Your task to perform on an android device: Open the phone app and click the voicemail tab. Image 0: 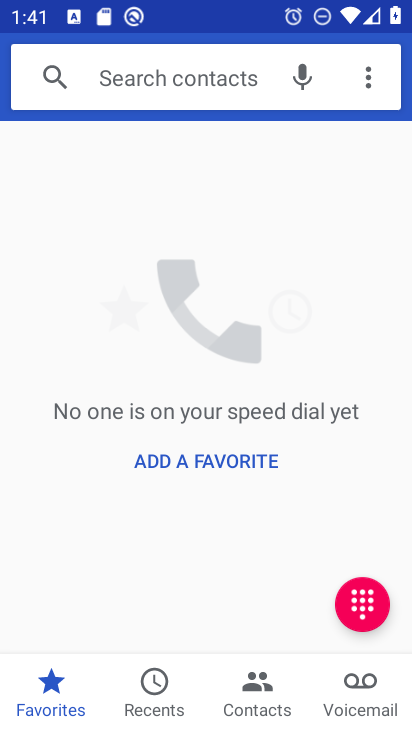
Step 0: drag from (232, 638) to (289, 270)
Your task to perform on an android device: Open the phone app and click the voicemail tab. Image 1: 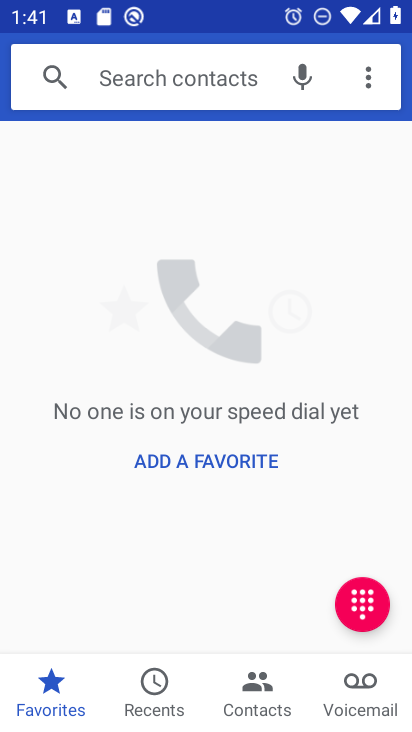
Step 1: press home button
Your task to perform on an android device: Open the phone app and click the voicemail tab. Image 2: 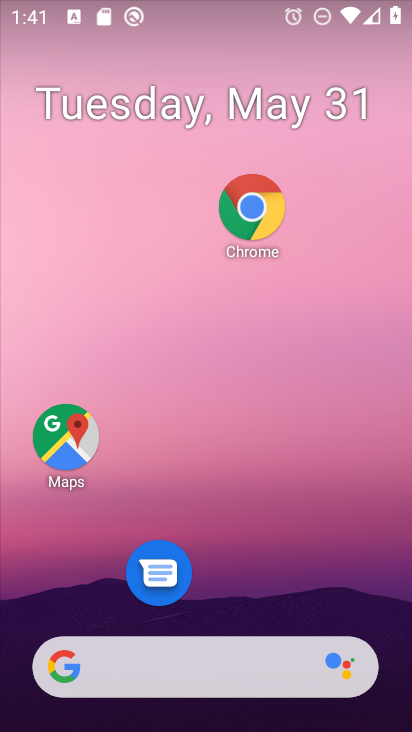
Step 2: drag from (336, 633) to (345, 227)
Your task to perform on an android device: Open the phone app and click the voicemail tab. Image 3: 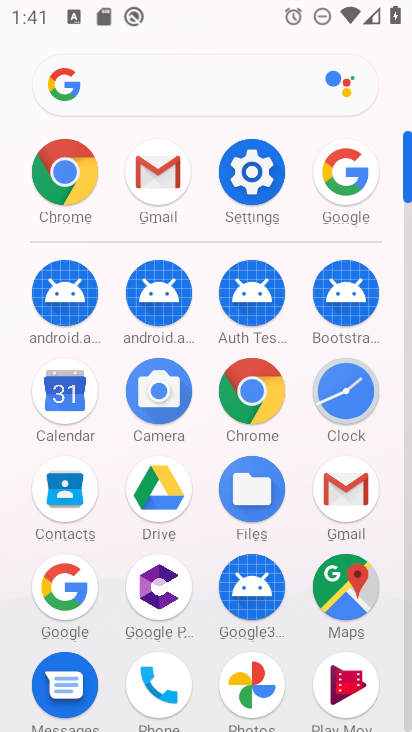
Step 3: drag from (156, 536) to (181, 348)
Your task to perform on an android device: Open the phone app and click the voicemail tab. Image 4: 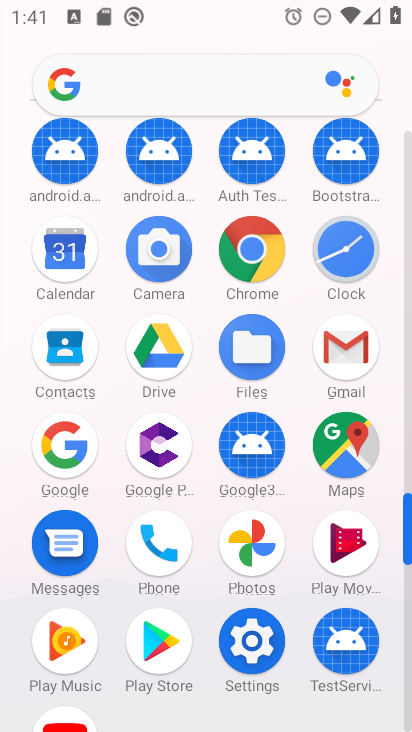
Step 4: click (160, 549)
Your task to perform on an android device: Open the phone app and click the voicemail tab. Image 5: 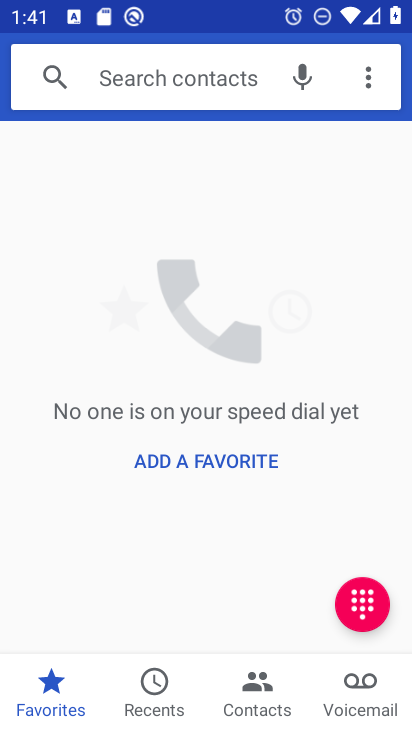
Step 5: click (369, 693)
Your task to perform on an android device: Open the phone app and click the voicemail tab. Image 6: 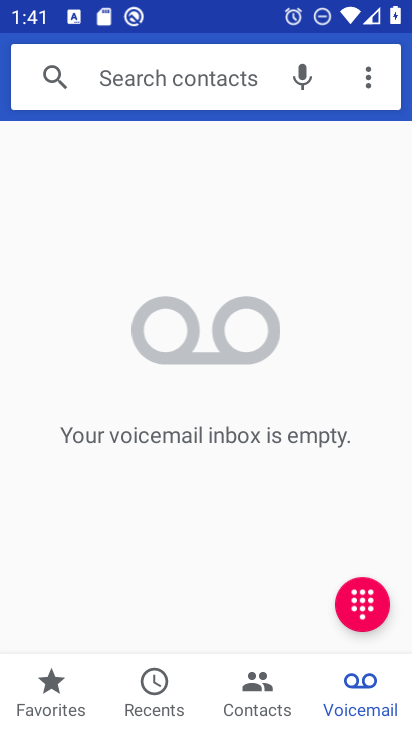
Step 6: task complete